Your task to perform on an android device: What's the weather going to be this weekend? Image 0: 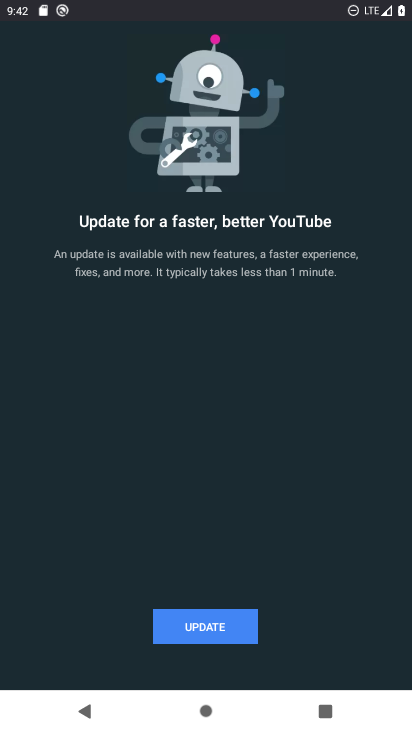
Step 0: press back button
Your task to perform on an android device: What's the weather going to be this weekend? Image 1: 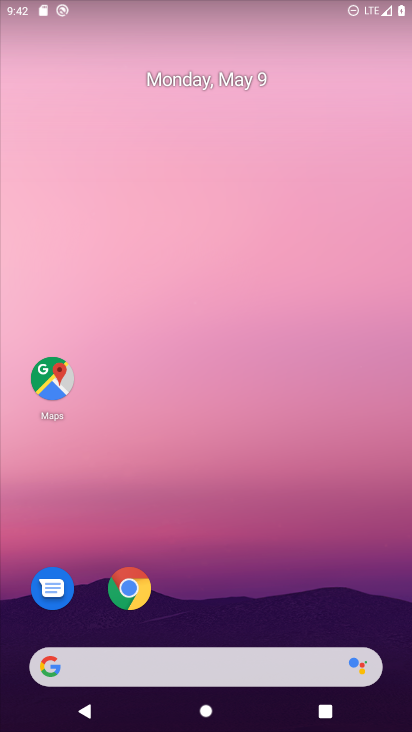
Step 1: drag from (234, 510) to (287, 4)
Your task to perform on an android device: What's the weather going to be this weekend? Image 2: 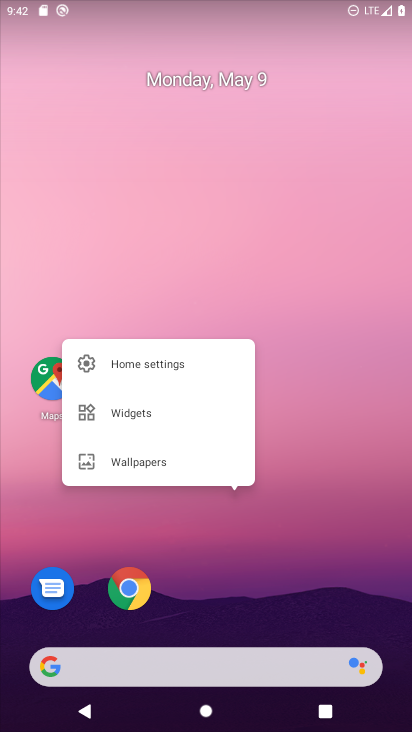
Step 2: click (316, 613)
Your task to perform on an android device: What's the weather going to be this weekend? Image 3: 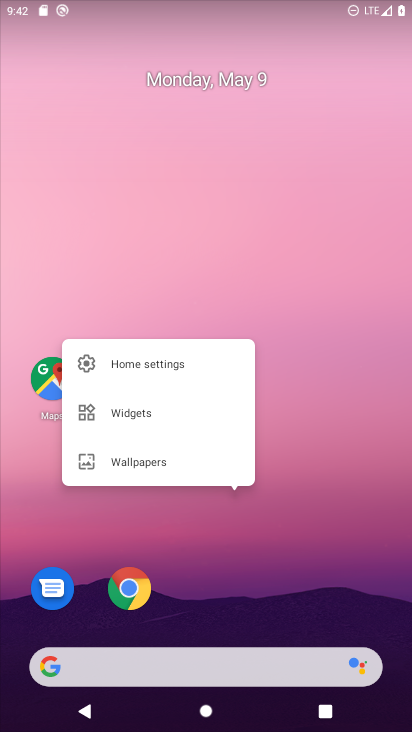
Step 3: drag from (316, 613) to (277, 181)
Your task to perform on an android device: What's the weather going to be this weekend? Image 4: 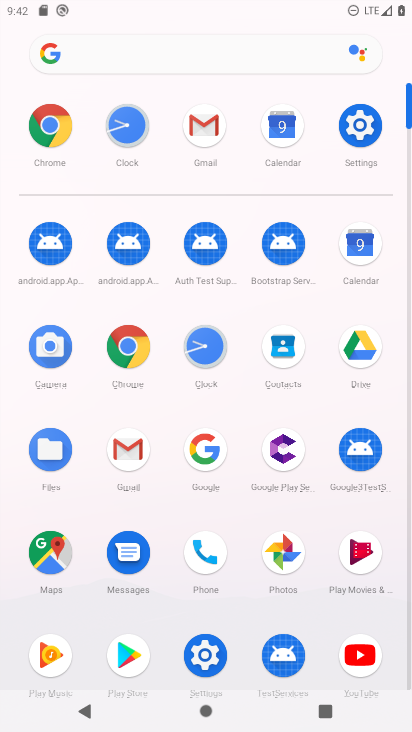
Step 4: click (345, 152)
Your task to perform on an android device: What's the weather going to be this weekend? Image 5: 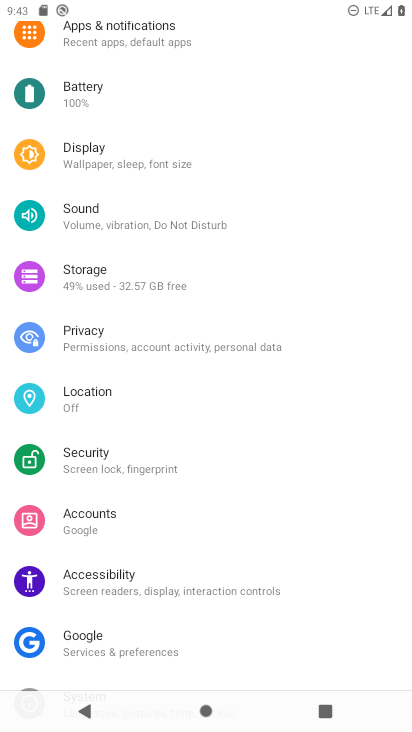
Step 5: press home button
Your task to perform on an android device: What's the weather going to be this weekend? Image 6: 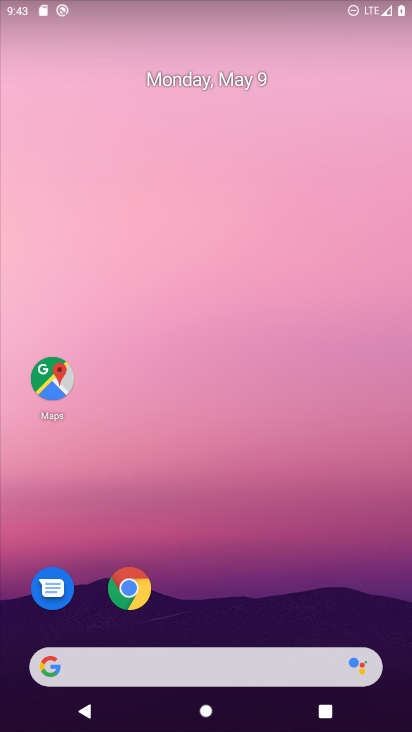
Step 6: drag from (226, 586) to (183, 57)
Your task to perform on an android device: What's the weather going to be this weekend? Image 7: 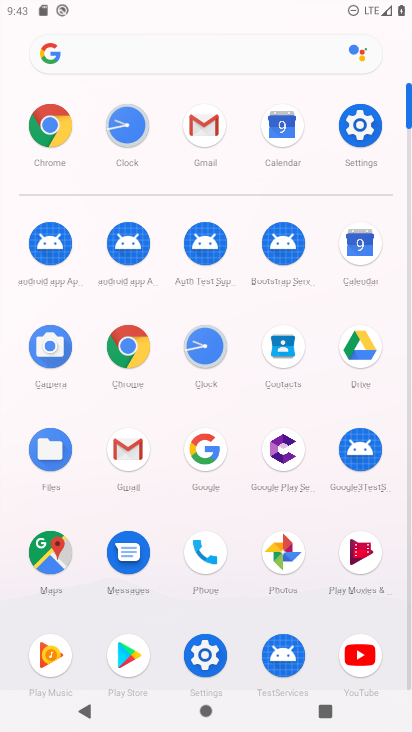
Step 7: click (118, 154)
Your task to perform on an android device: What's the weather going to be this weekend? Image 8: 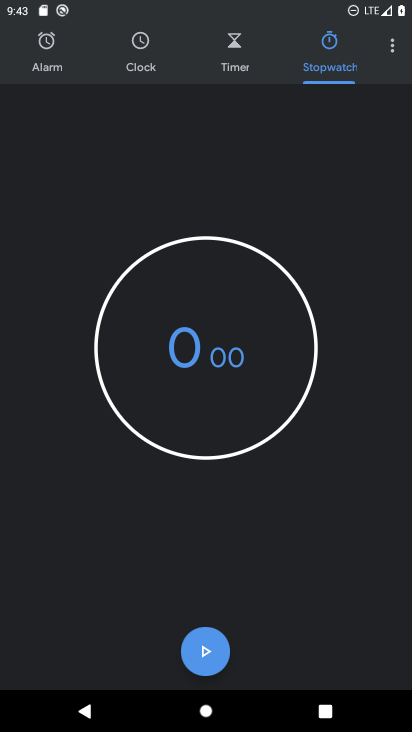
Step 8: press home button
Your task to perform on an android device: What's the weather going to be this weekend? Image 9: 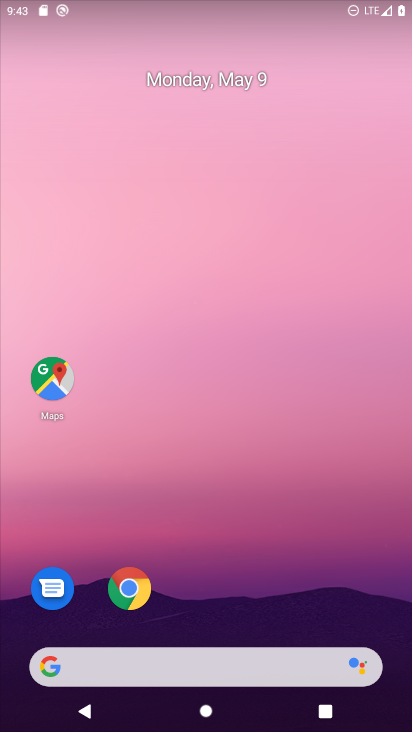
Step 9: drag from (245, 623) to (220, 172)
Your task to perform on an android device: What's the weather going to be this weekend? Image 10: 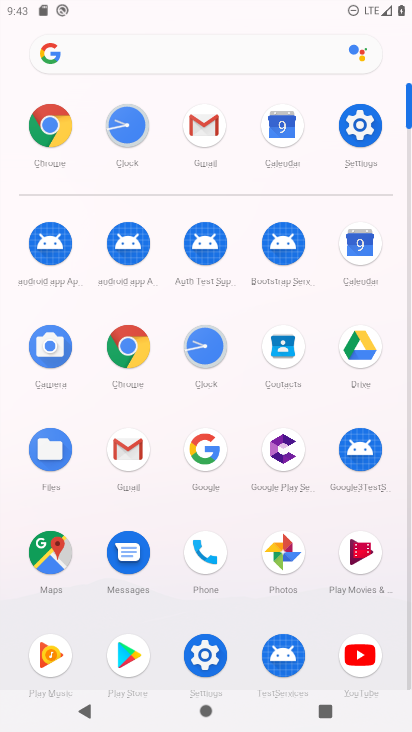
Step 10: click (220, 53)
Your task to perform on an android device: What's the weather going to be this weekend? Image 11: 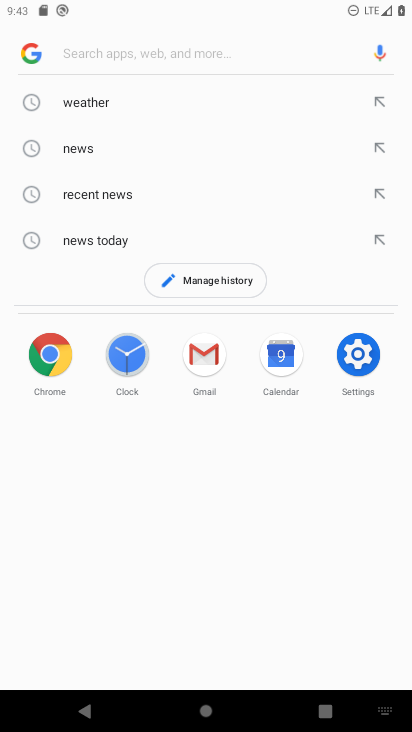
Step 11: click (105, 101)
Your task to perform on an android device: What's the weather going to be this weekend? Image 12: 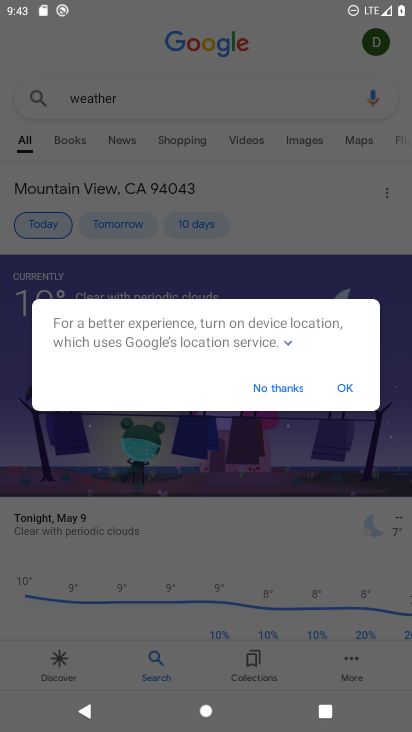
Step 12: click (300, 391)
Your task to perform on an android device: What's the weather going to be this weekend? Image 13: 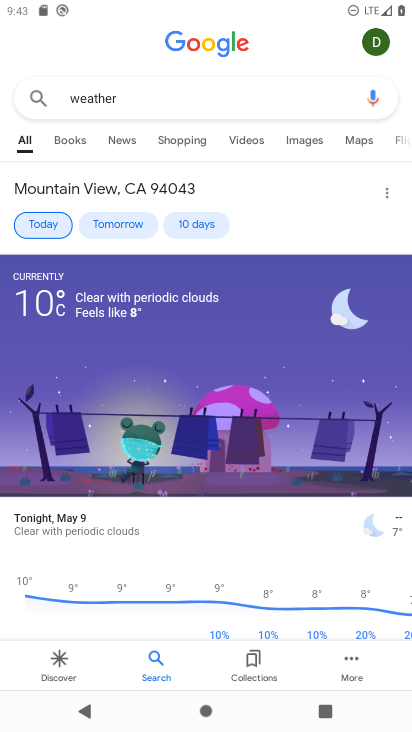
Step 13: click (130, 223)
Your task to perform on an android device: What's the weather going to be this weekend? Image 14: 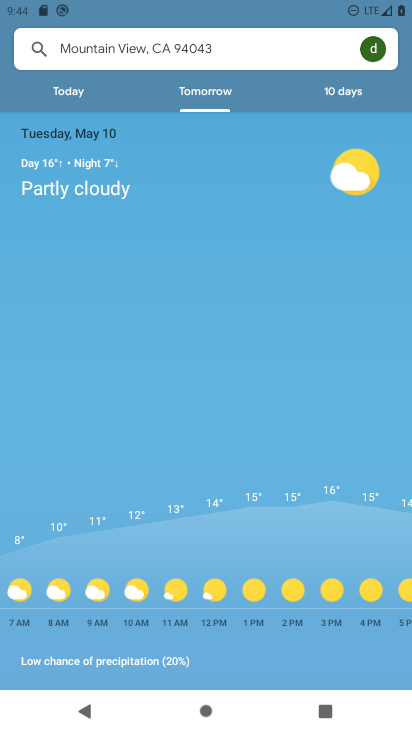
Step 14: task complete